Your task to perform on an android device: Search for Italian restaurants on Maps Image 0: 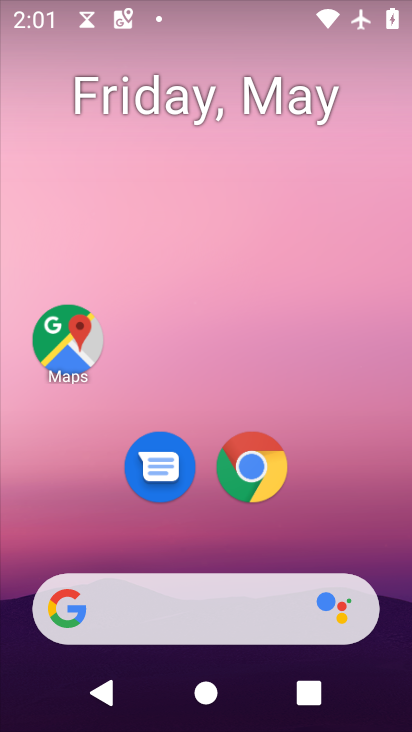
Step 0: click (68, 345)
Your task to perform on an android device: Search for Italian restaurants on Maps Image 1: 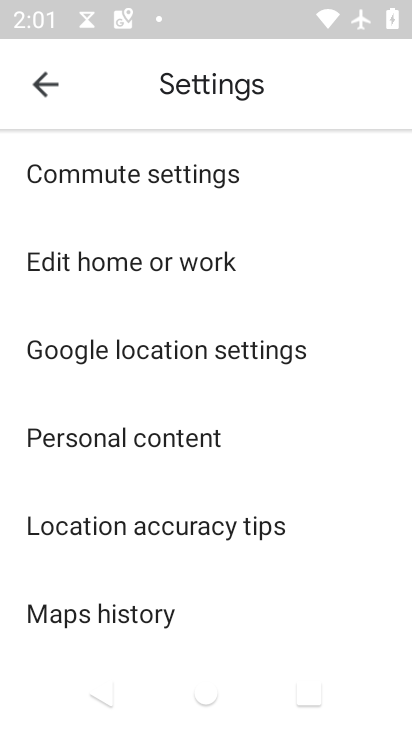
Step 1: click (42, 84)
Your task to perform on an android device: Search for Italian restaurants on Maps Image 2: 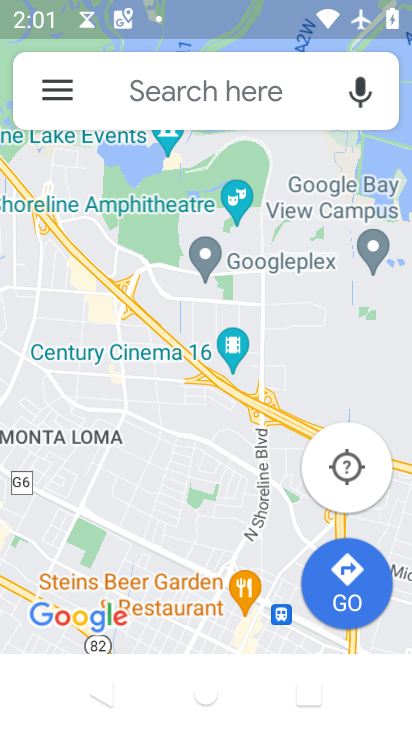
Step 2: click (138, 84)
Your task to perform on an android device: Search for Italian restaurants on Maps Image 3: 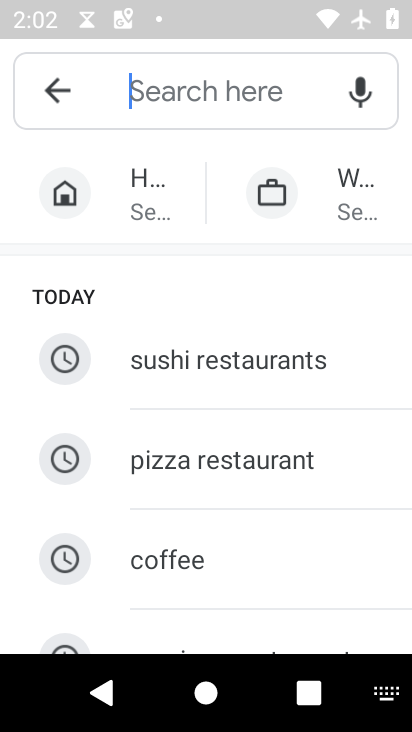
Step 3: type "Italian restaurants"
Your task to perform on an android device: Search for Italian restaurants on Maps Image 4: 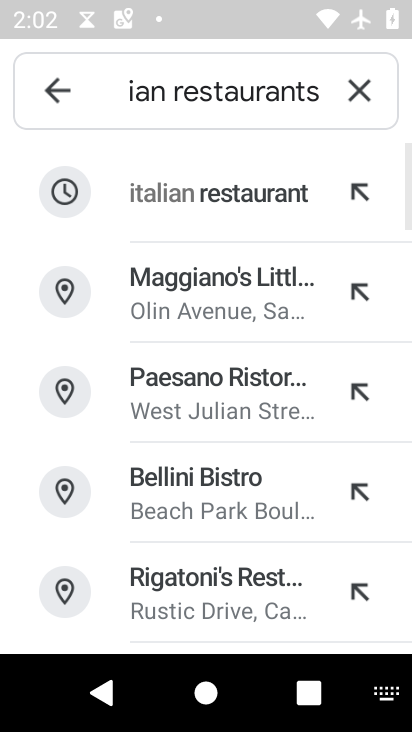
Step 4: click (206, 197)
Your task to perform on an android device: Search for Italian restaurants on Maps Image 5: 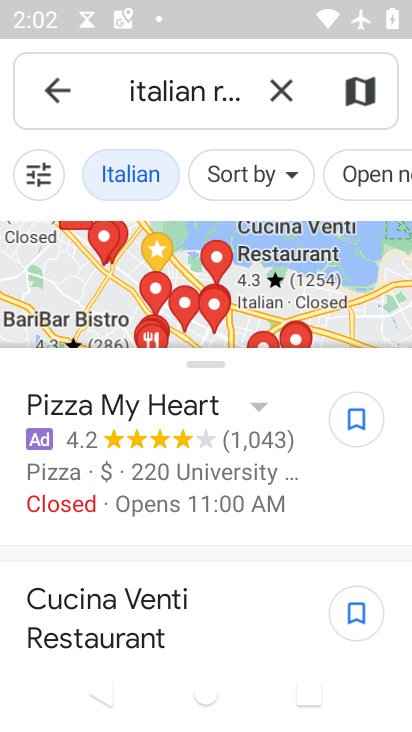
Step 5: task complete